Your task to perform on an android device: Open Yahoo.com Image 0: 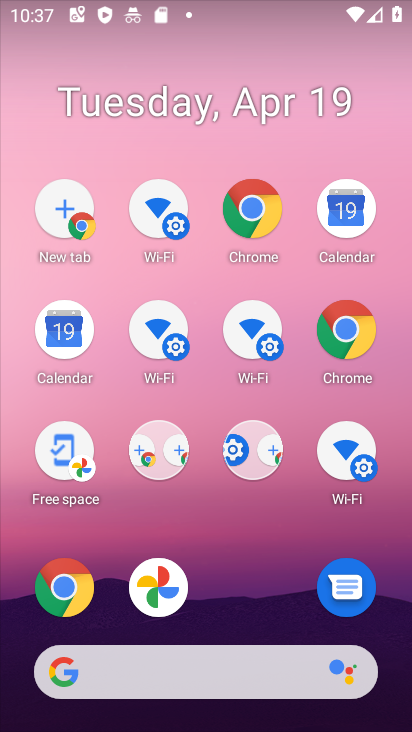
Step 0: click (52, 572)
Your task to perform on an android device: Open Yahoo.com Image 1: 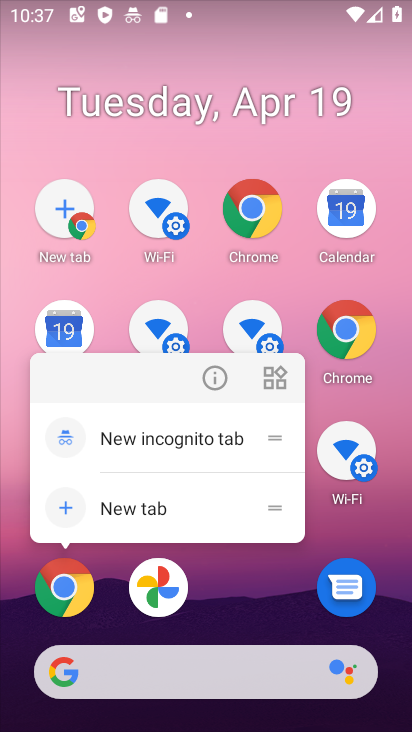
Step 1: click (243, 578)
Your task to perform on an android device: Open Yahoo.com Image 2: 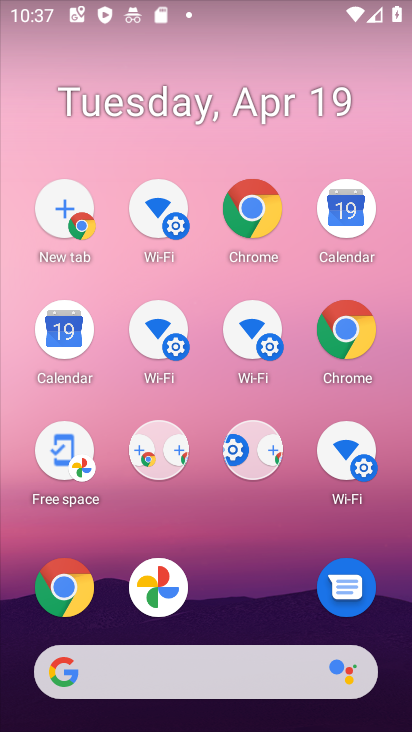
Step 2: click (66, 586)
Your task to perform on an android device: Open Yahoo.com Image 3: 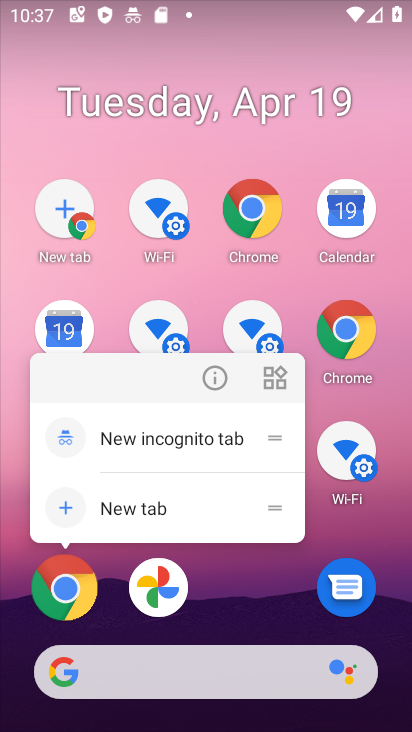
Step 3: click (66, 586)
Your task to perform on an android device: Open Yahoo.com Image 4: 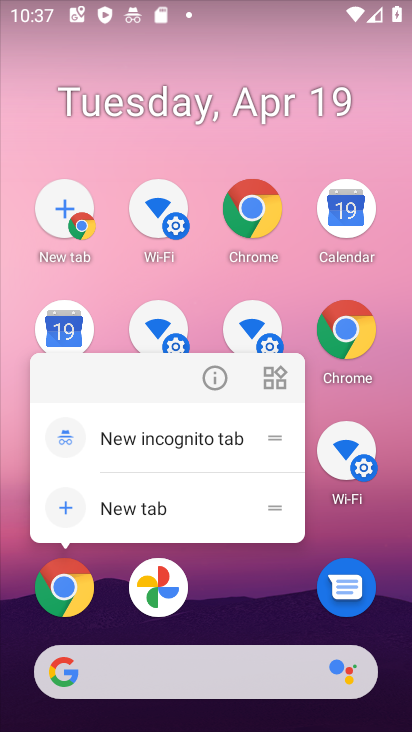
Step 4: click (70, 584)
Your task to perform on an android device: Open Yahoo.com Image 5: 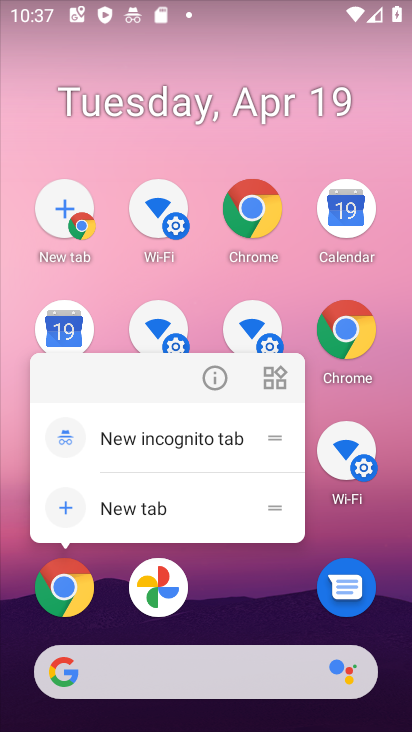
Step 5: click (70, 584)
Your task to perform on an android device: Open Yahoo.com Image 6: 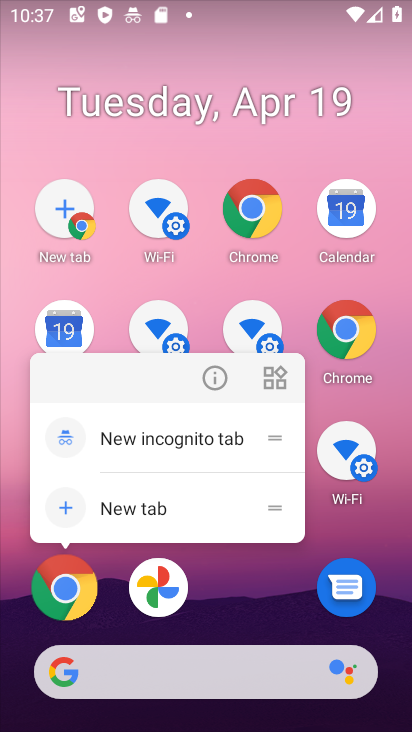
Step 6: click (70, 584)
Your task to perform on an android device: Open Yahoo.com Image 7: 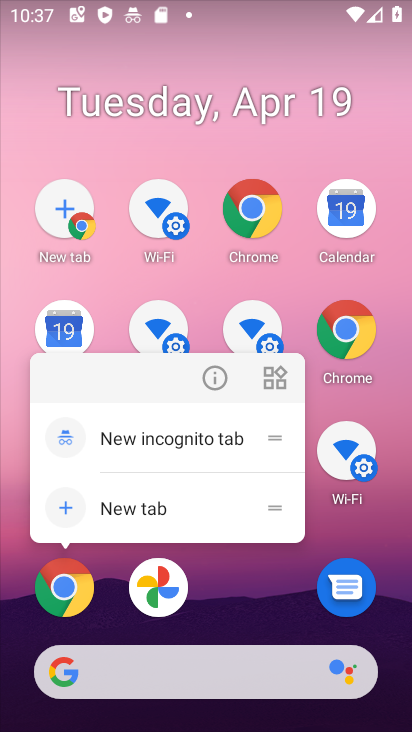
Step 7: click (70, 584)
Your task to perform on an android device: Open Yahoo.com Image 8: 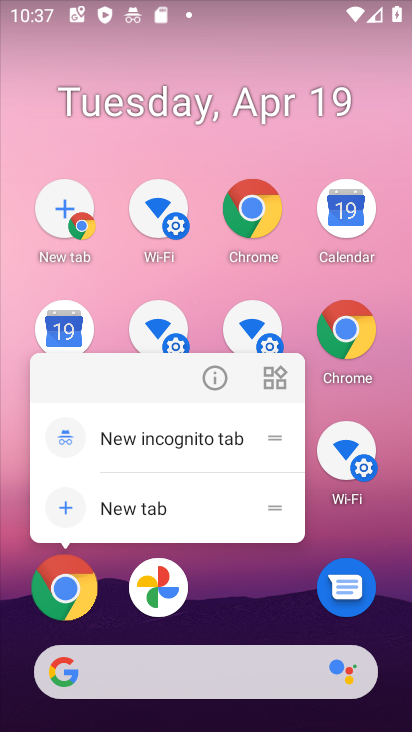
Step 8: click (70, 584)
Your task to perform on an android device: Open Yahoo.com Image 9: 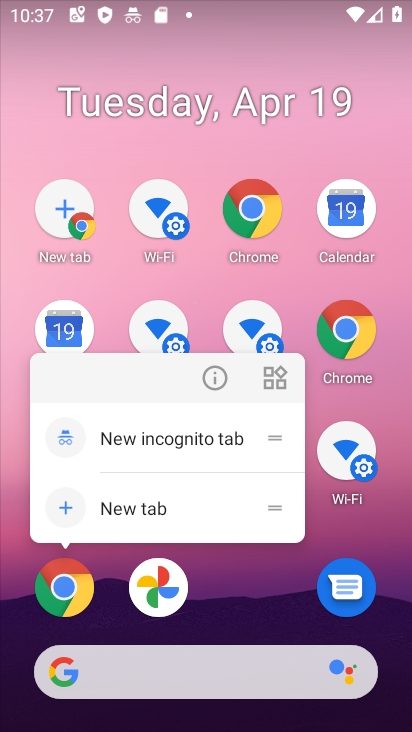
Step 9: click (73, 582)
Your task to perform on an android device: Open Yahoo.com Image 10: 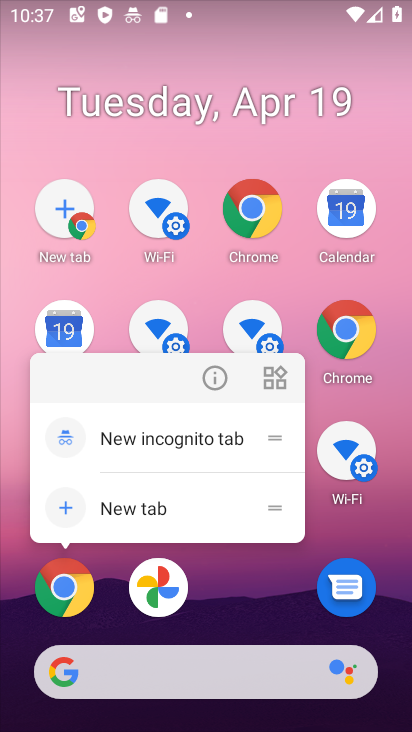
Step 10: click (73, 582)
Your task to perform on an android device: Open Yahoo.com Image 11: 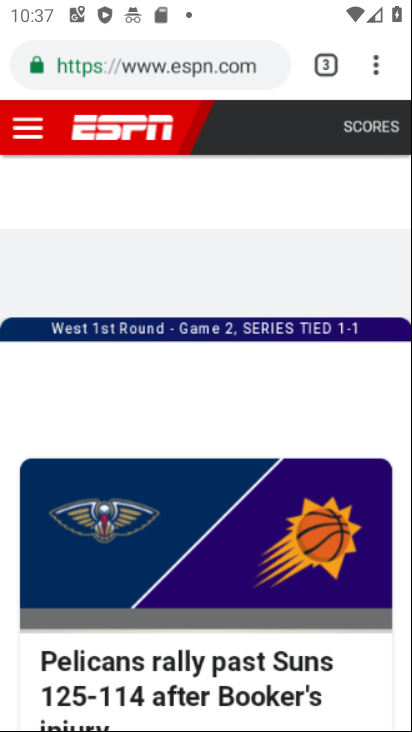
Step 11: click (73, 582)
Your task to perform on an android device: Open Yahoo.com Image 12: 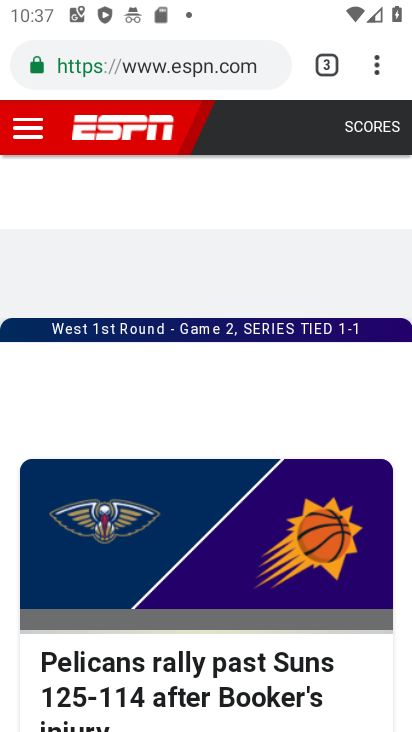
Step 12: drag from (370, 64) to (157, 207)
Your task to perform on an android device: Open Yahoo.com Image 13: 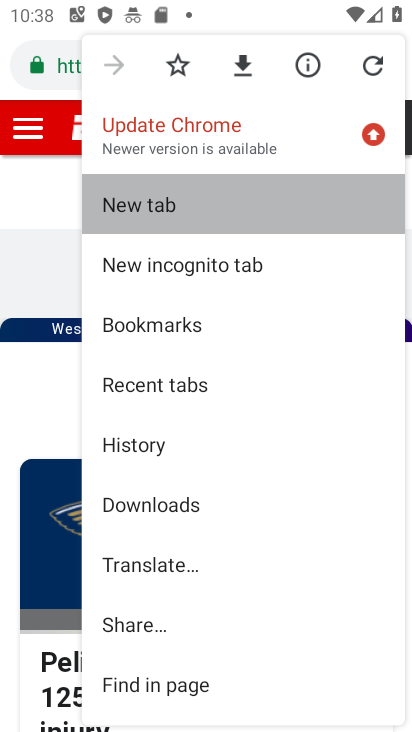
Step 13: click (157, 207)
Your task to perform on an android device: Open Yahoo.com Image 14: 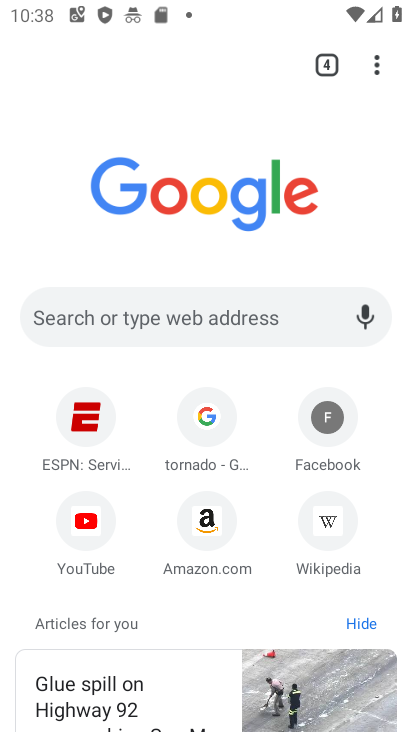
Step 14: click (102, 319)
Your task to perform on an android device: Open Yahoo.com Image 15: 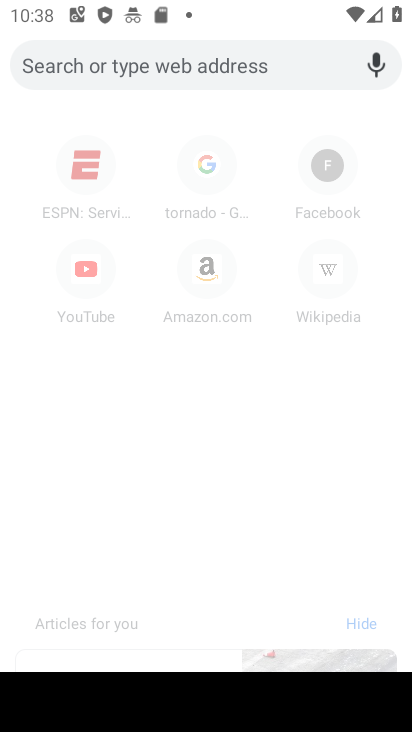
Step 15: type "www.yahoo.com"
Your task to perform on an android device: Open Yahoo.com Image 16: 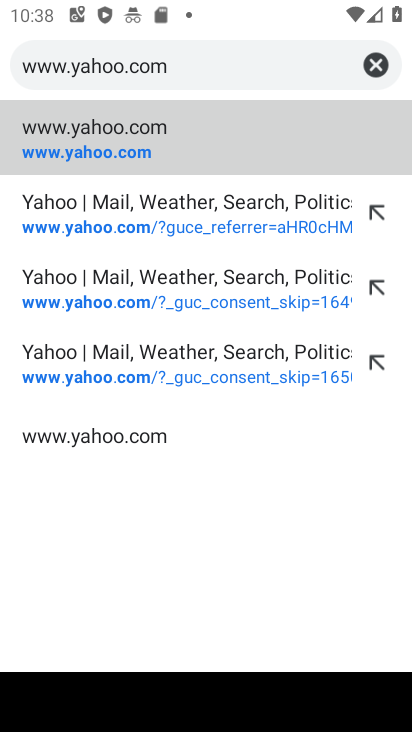
Step 16: click (138, 160)
Your task to perform on an android device: Open Yahoo.com Image 17: 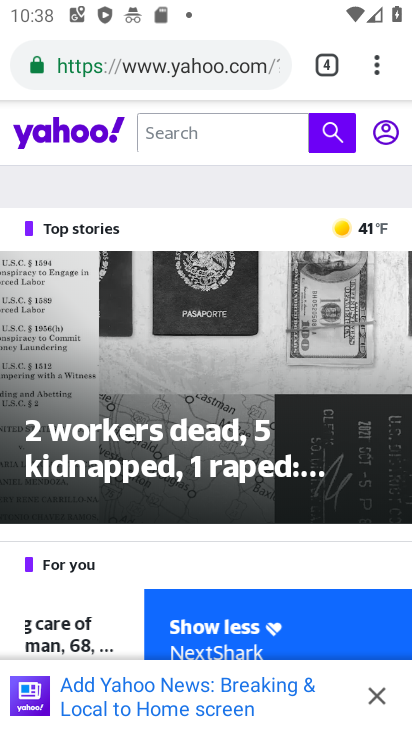
Step 17: task complete